Your task to perform on an android device: Open settings Image 0: 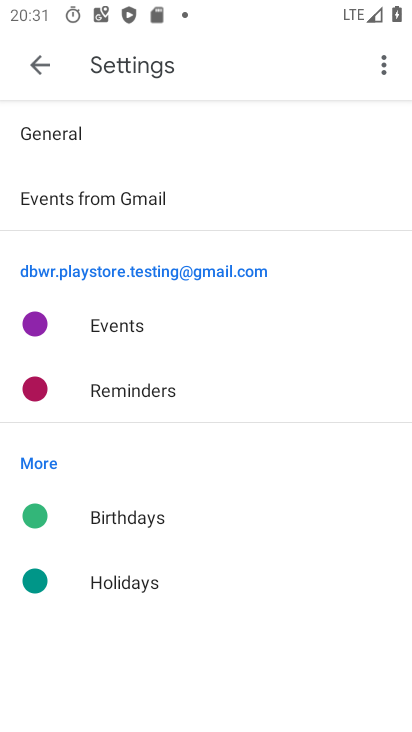
Step 0: press home button
Your task to perform on an android device: Open settings Image 1: 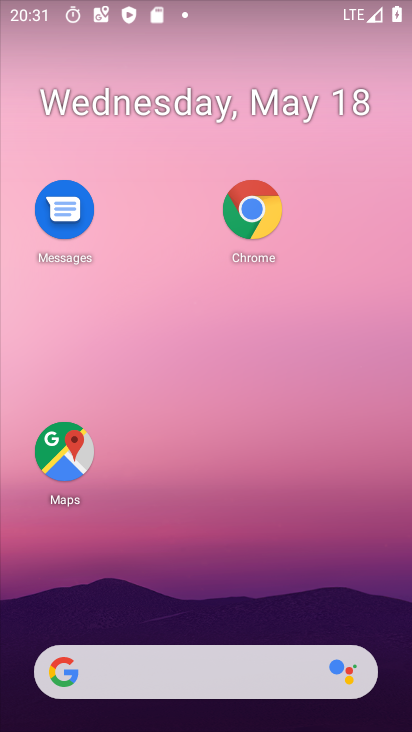
Step 1: drag from (179, 604) to (207, 15)
Your task to perform on an android device: Open settings Image 2: 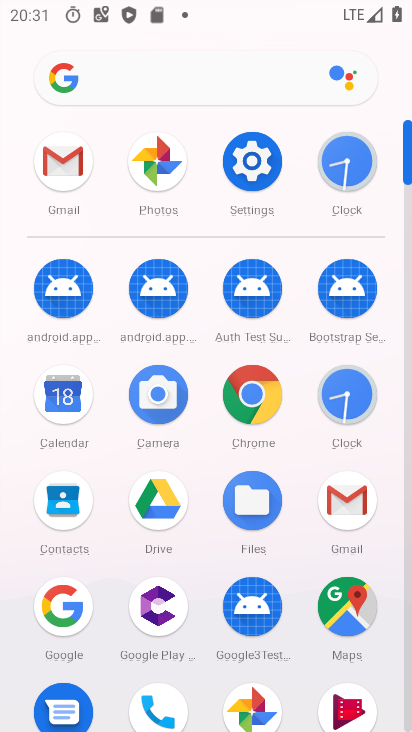
Step 2: click (252, 165)
Your task to perform on an android device: Open settings Image 3: 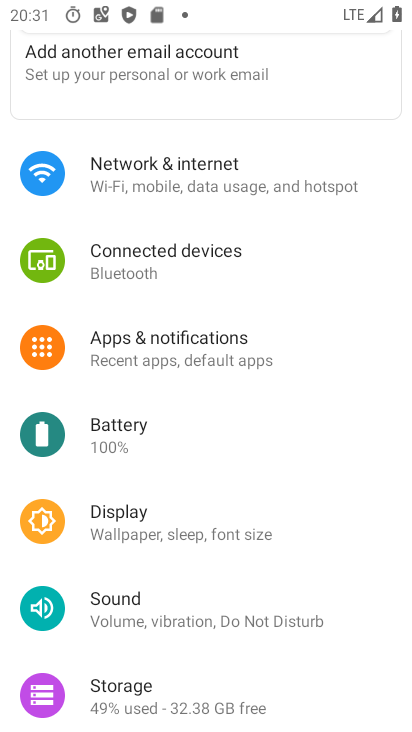
Step 3: task complete